Your task to perform on an android device: Go to eBay Image 0: 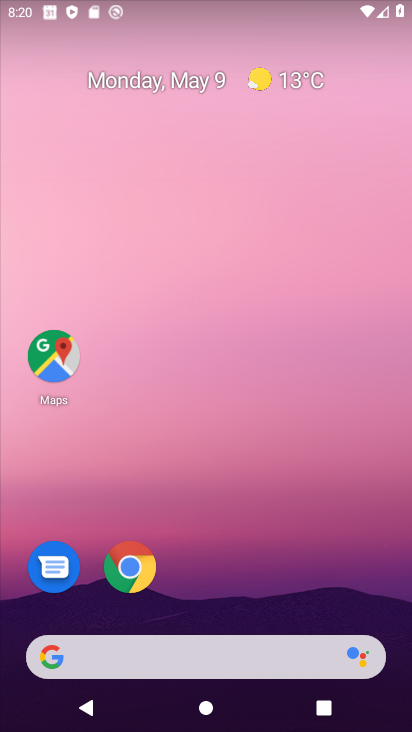
Step 0: click (251, 664)
Your task to perform on an android device: Go to eBay Image 1: 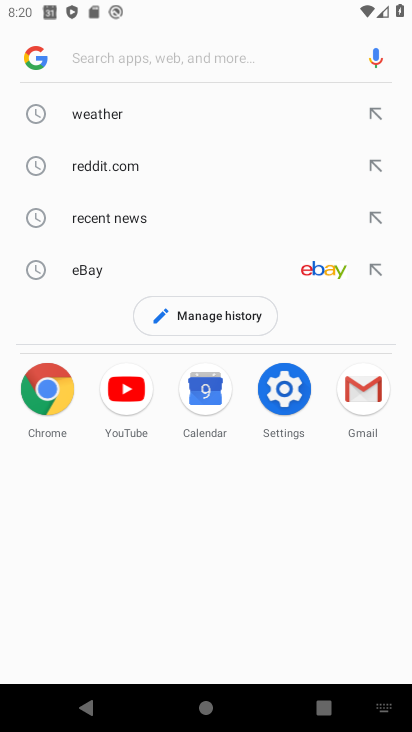
Step 1: click (312, 266)
Your task to perform on an android device: Go to eBay Image 2: 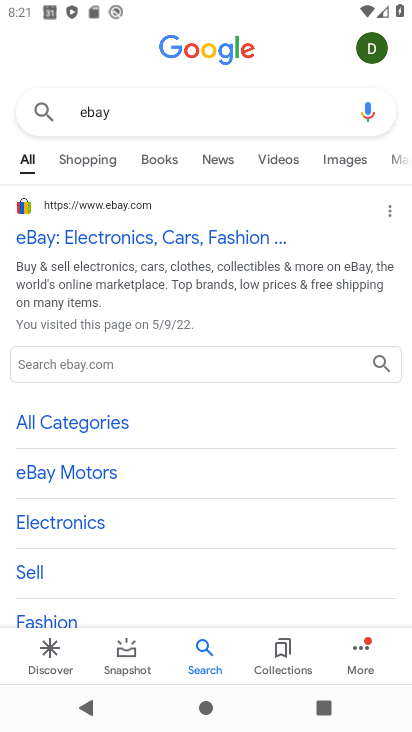
Step 2: click (238, 234)
Your task to perform on an android device: Go to eBay Image 3: 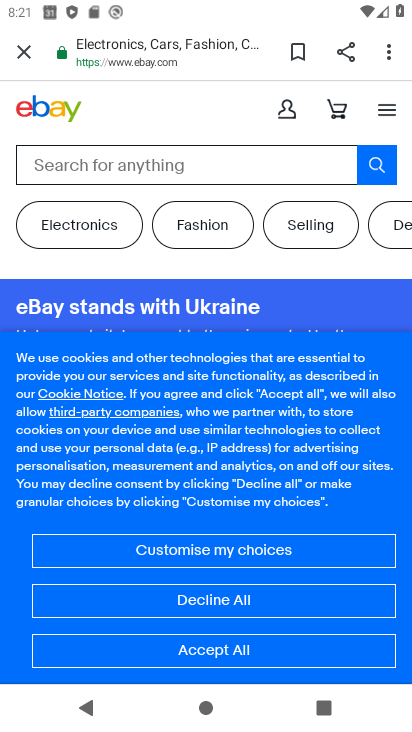
Step 3: task complete